Your task to perform on an android device: change text size in settings app Image 0: 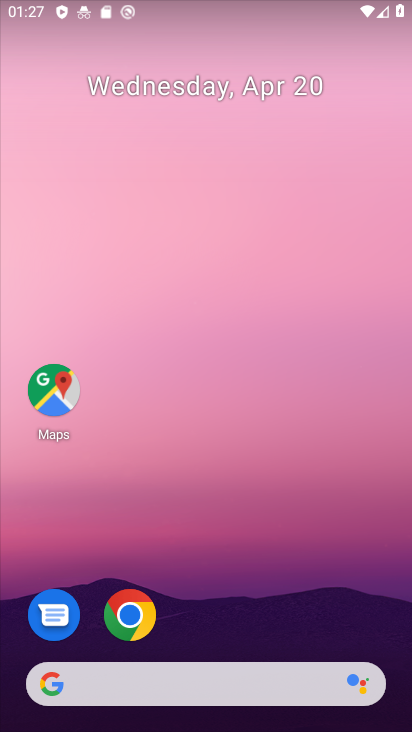
Step 0: drag from (347, 220) to (336, 88)
Your task to perform on an android device: change text size in settings app Image 1: 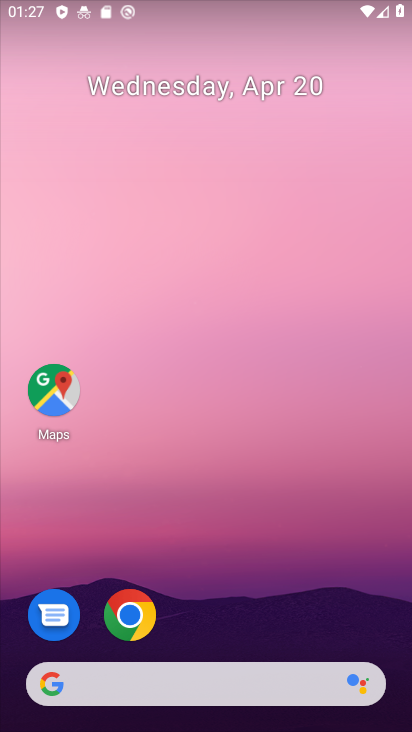
Step 1: drag from (388, 361) to (397, 134)
Your task to perform on an android device: change text size in settings app Image 2: 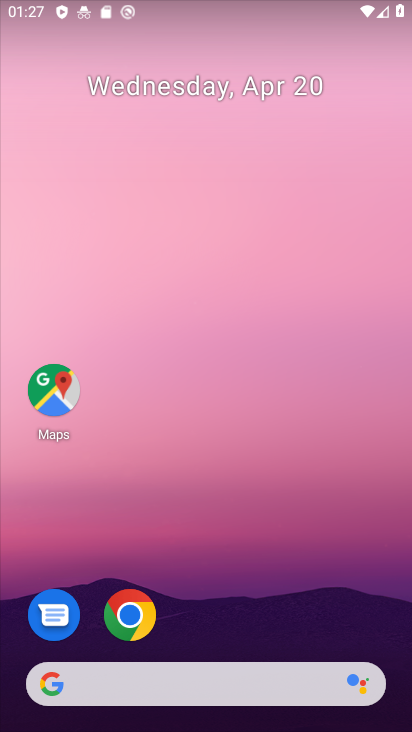
Step 2: drag from (373, 620) to (344, 71)
Your task to perform on an android device: change text size in settings app Image 3: 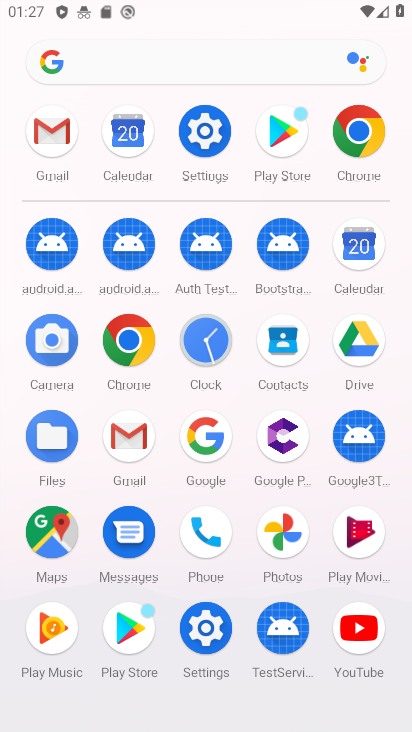
Step 3: click (206, 634)
Your task to perform on an android device: change text size in settings app Image 4: 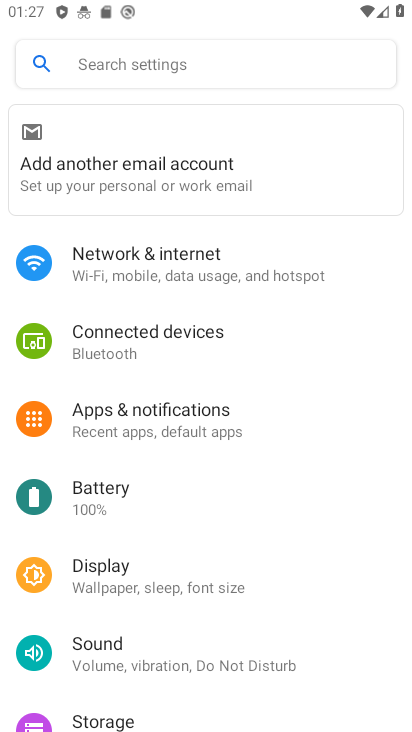
Step 4: click (105, 562)
Your task to perform on an android device: change text size in settings app Image 5: 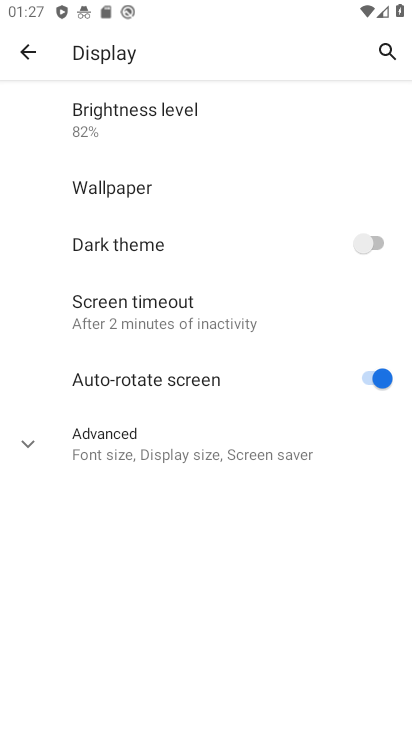
Step 5: drag from (296, 226) to (299, 515)
Your task to perform on an android device: change text size in settings app Image 6: 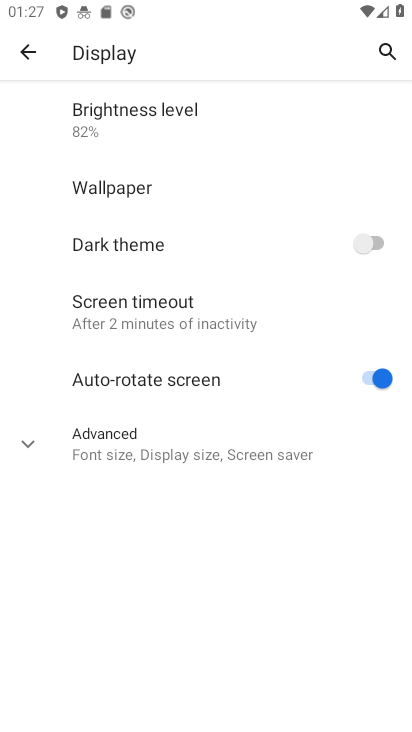
Step 6: drag from (244, 128) to (267, 458)
Your task to perform on an android device: change text size in settings app Image 7: 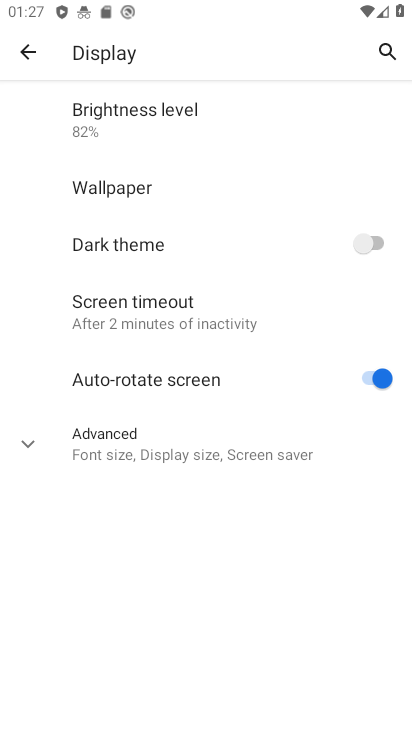
Step 7: drag from (233, 131) to (275, 555)
Your task to perform on an android device: change text size in settings app Image 8: 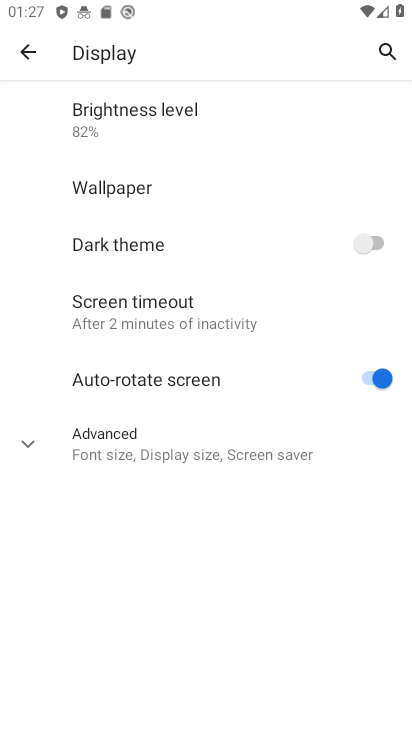
Step 8: click (94, 450)
Your task to perform on an android device: change text size in settings app Image 9: 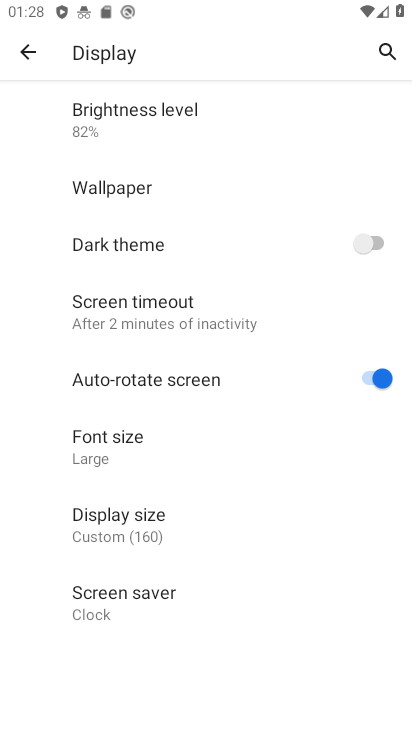
Step 9: click (91, 440)
Your task to perform on an android device: change text size in settings app Image 10: 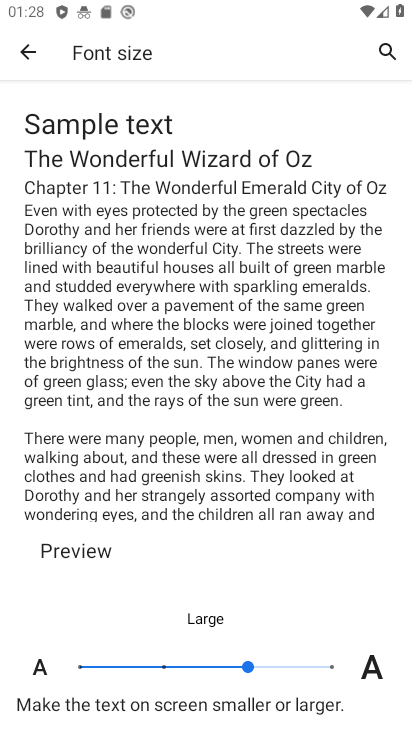
Step 10: click (214, 663)
Your task to perform on an android device: change text size in settings app Image 11: 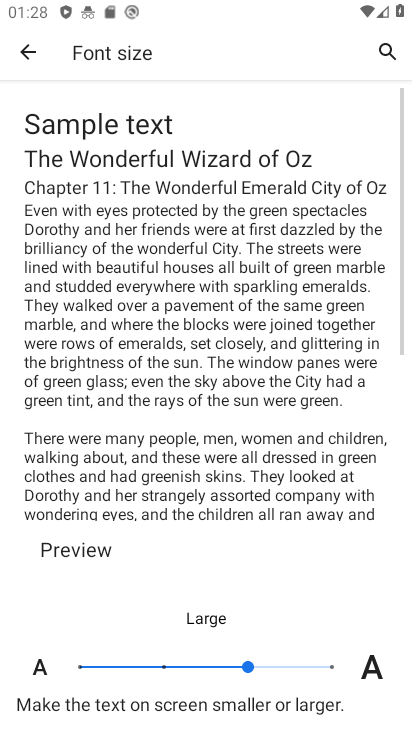
Step 11: click (214, 665)
Your task to perform on an android device: change text size in settings app Image 12: 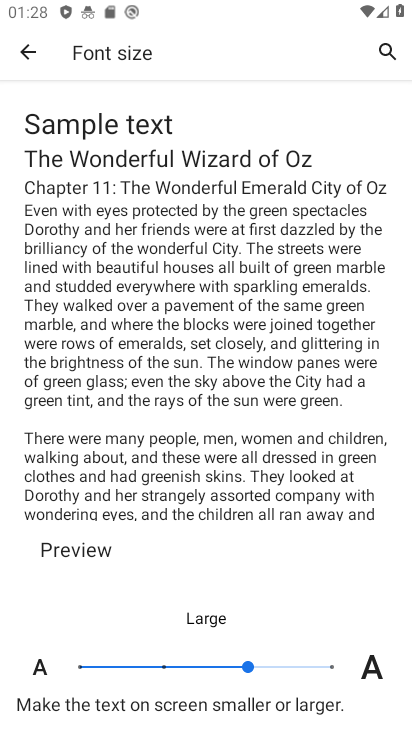
Step 12: task complete